Your task to perform on an android device: read, delete, or share a saved page in the chrome app Image 0: 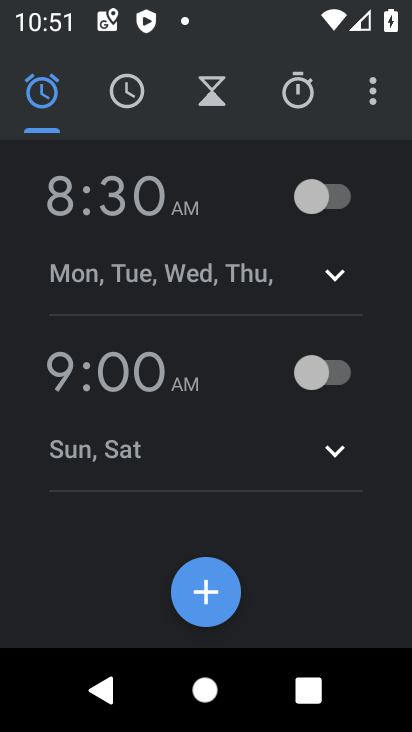
Step 0: press back button
Your task to perform on an android device: read, delete, or share a saved page in the chrome app Image 1: 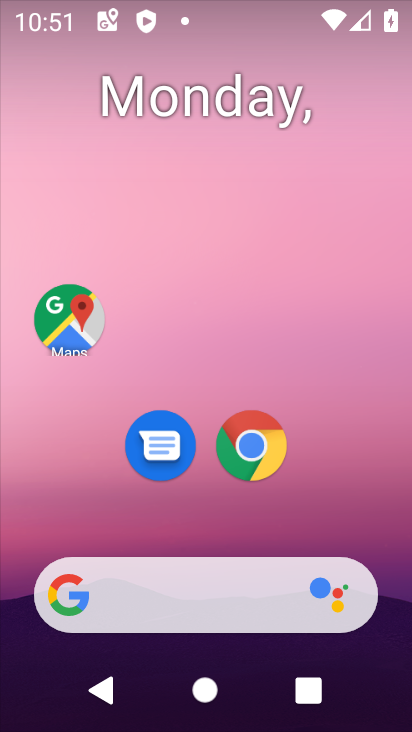
Step 1: drag from (212, 561) to (293, 96)
Your task to perform on an android device: read, delete, or share a saved page in the chrome app Image 2: 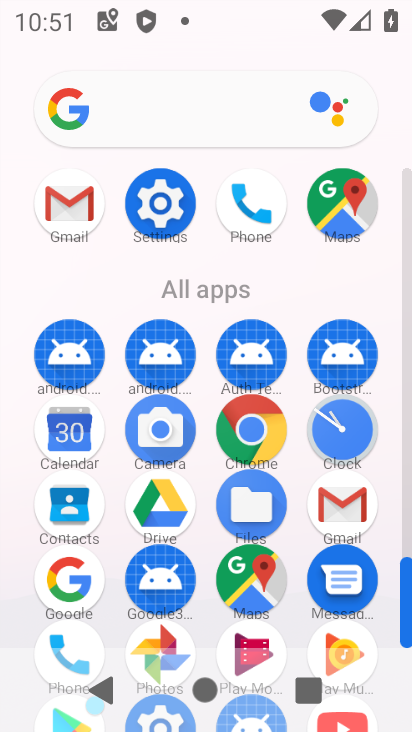
Step 2: drag from (246, 572) to (274, 357)
Your task to perform on an android device: read, delete, or share a saved page in the chrome app Image 3: 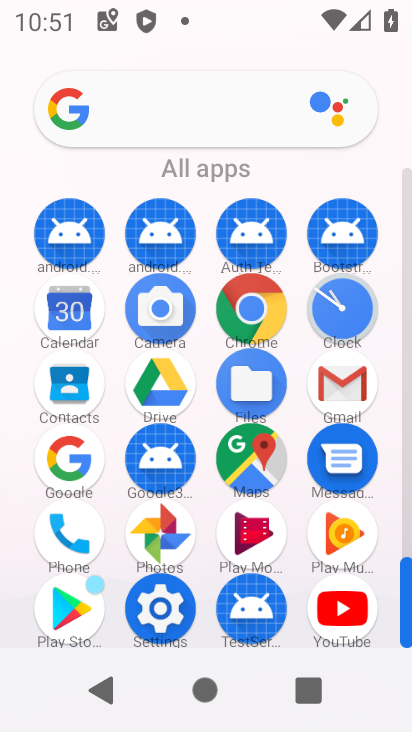
Step 3: click (246, 302)
Your task to perform on an android device: read, delete, or share a saved page in the chrome app Image 4: 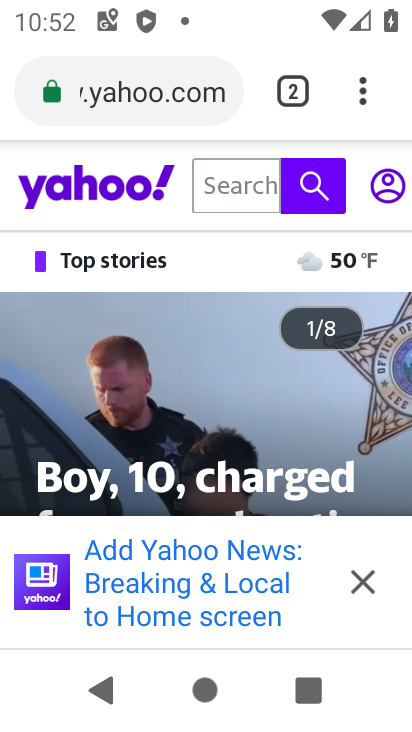
Step 4: drag from (362, 91) to (162, 253)
Your task to perform on an android device: read, delete, or share a saved page in the chrome app Image 5: 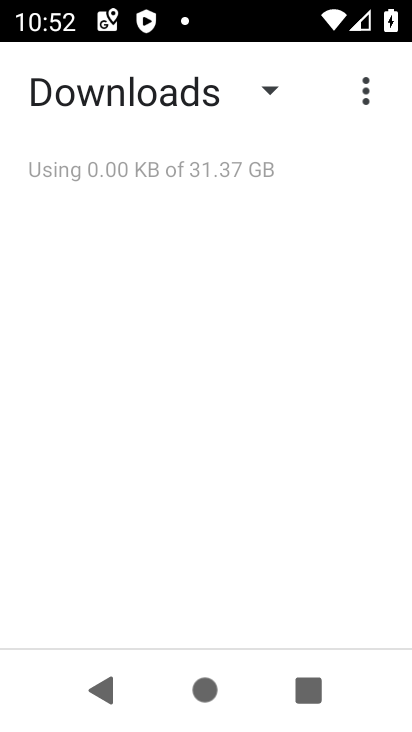
Step 5: click (252, 92)
Your task to perform on an android device: read, delete, or share a saved page in the chrome app Image 6: 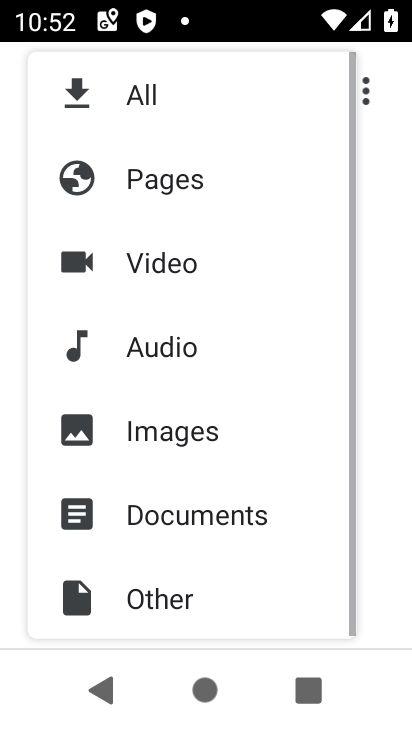
Step 6: click (192, 182)
Your task to perform on an android device: read, delete, or share a saved page in the chrome app Image 7: 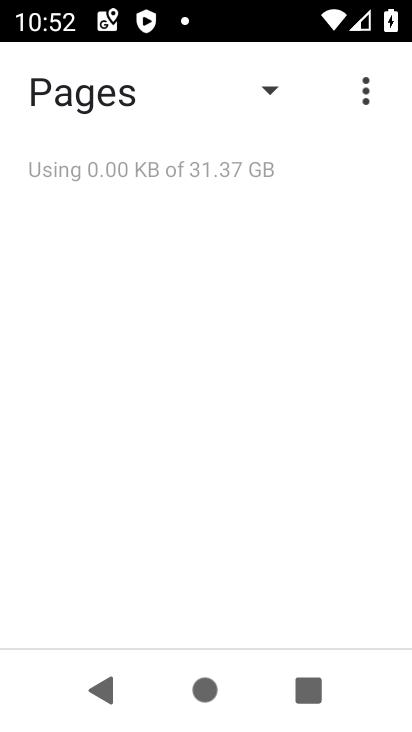
Step 7: task complete